Your task to perform on an android device: turn on bluetooth scan Image 0: 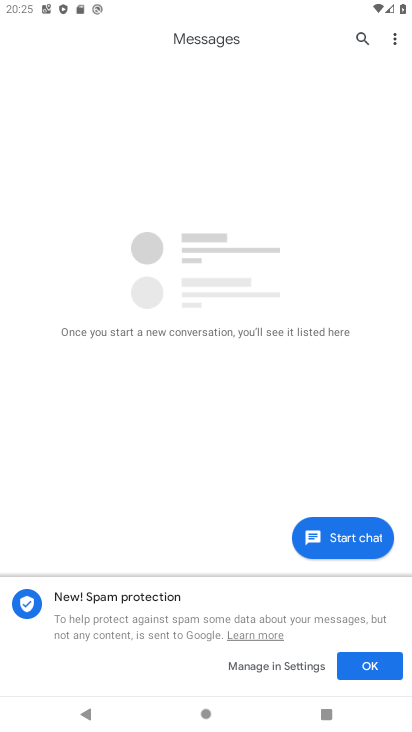
Step 0: press home button
Your task to perform on an android device: turn on bluetooth scan Image 1: 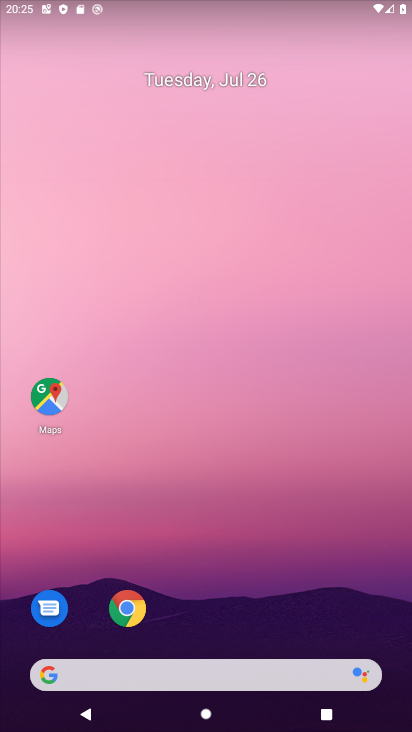
Step 1: drag from (229, 197) to (257, 61)
Your task to perform on an android device: turn on bluetooth scan Image 2: 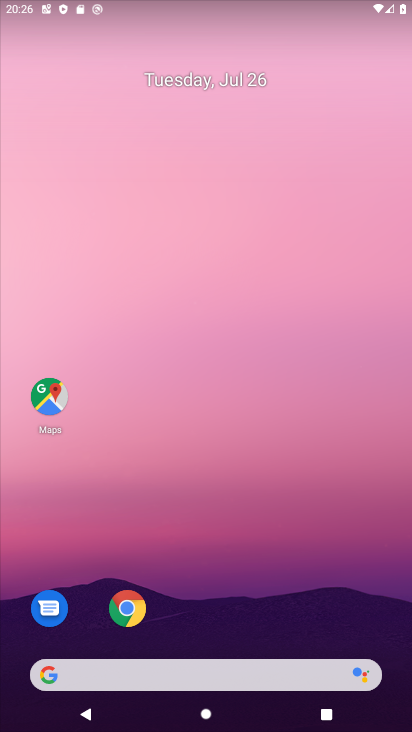
Step 2: drag from (165, 269) to (205, 60)
Your task to perform on an android device: turn on bluetooth scan Image 3: 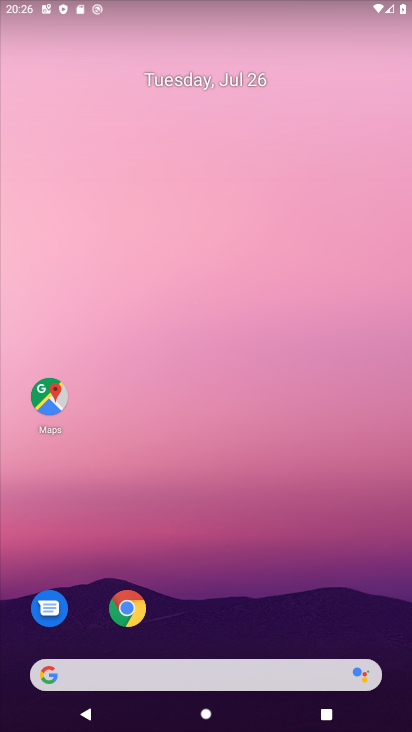
Step 3: drag from (82, 537) to (212, 46)
Your task to perform on an android device: turn on bluetooth scan Image 4: 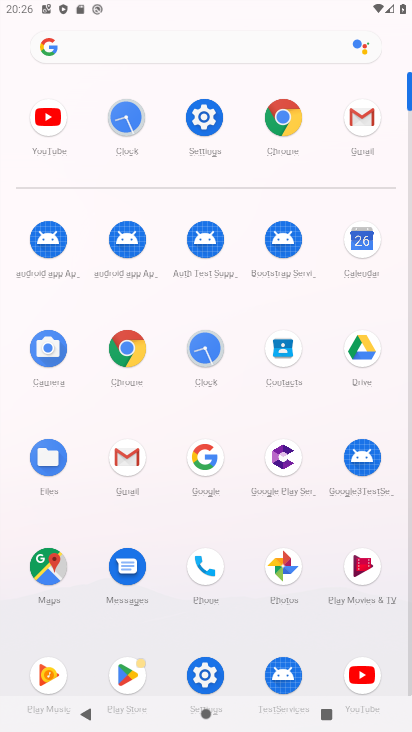
Step 4: click (193, 676)
Your task to perform on an android device: turn on bluetooth scan Image 5: 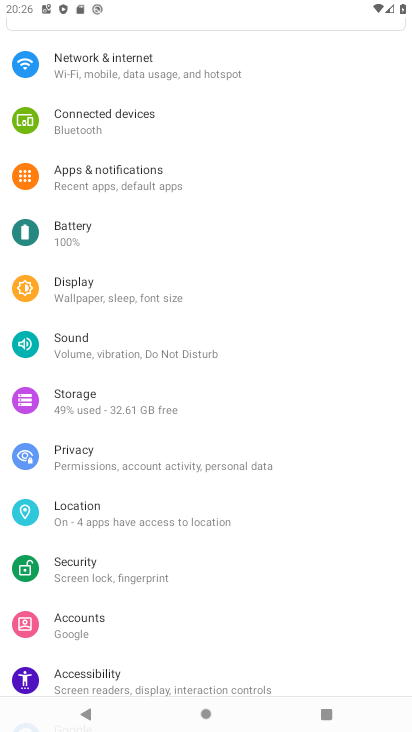
Step 5: click (94, 110)
Your task to perform on an android device: turn on bluetooth scan Image 6: 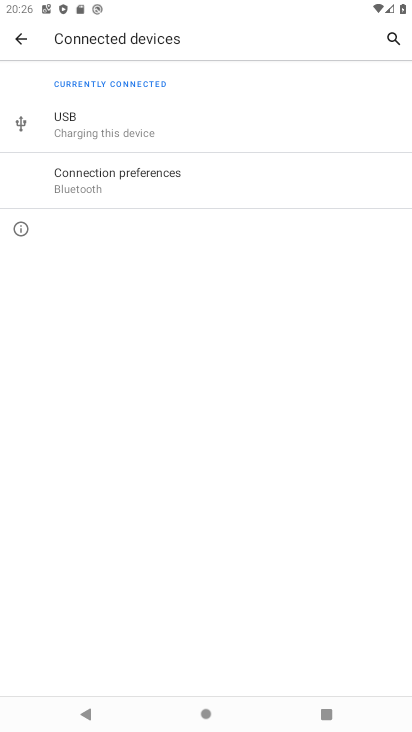
Step 6: click (99, 175)
Your task to perform on an android device: turn on bluetooth scan Image 7: 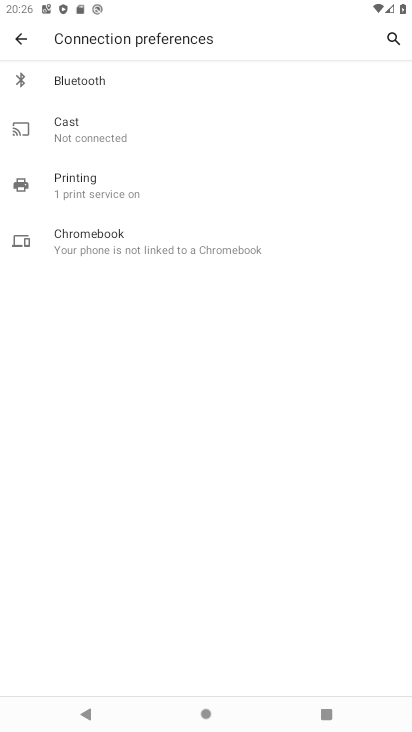
Step 7: click (65, 87)
Your task to perform on an android device: turn on bluetooth scan Image 8: 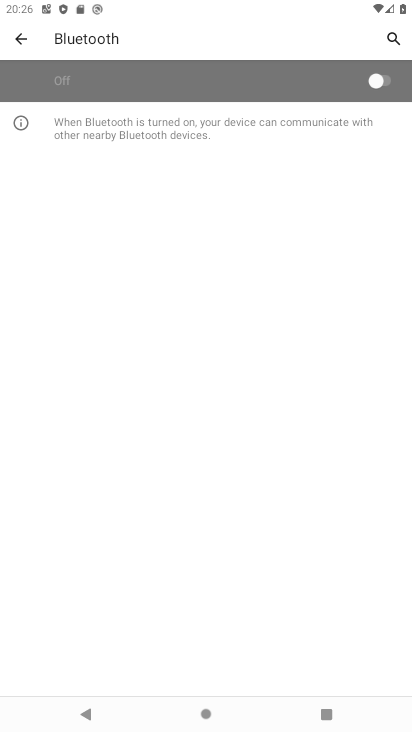
Step 8: task complete